Your task to perform on an android device: Show me the alarms in the clock app Image 0: 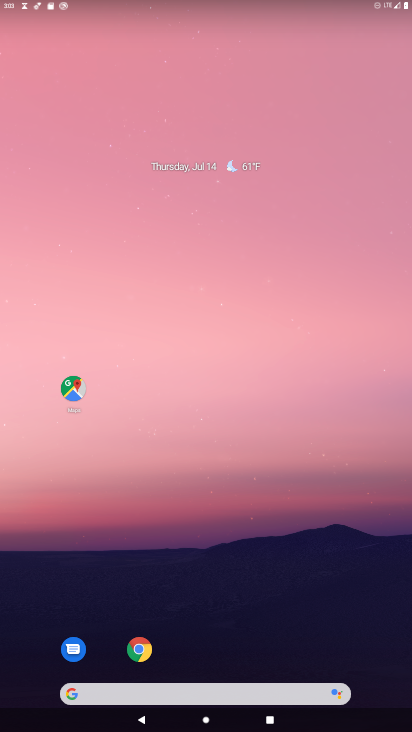
Step 0: drag from (289, 696) to (295, 5)
Your task to perform on an android device: Show me the alarms in the clock app Image 1: 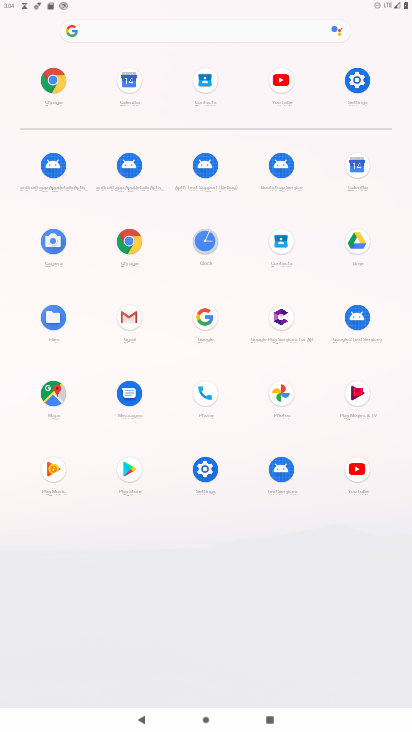
Step 1: click (196, 239)
Your task to perform on an android device: Show me the alarms in the clock app Image 2: 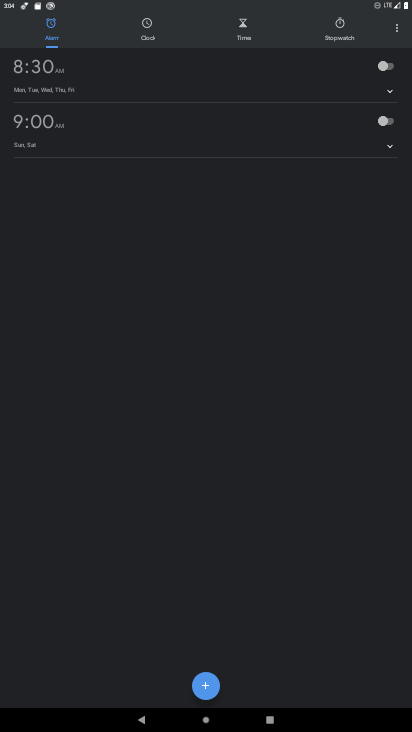
Step 2: task complete